Your task to perform on an android device: toggle javascript in the chrome app Image 0: 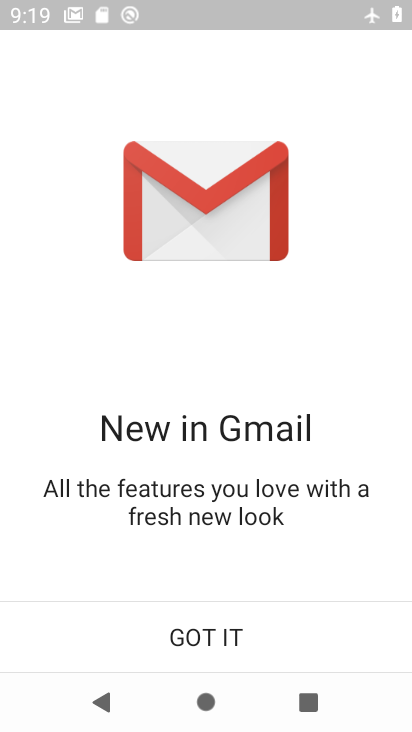
Step 0: press home button
Your task to perform on an android device: toggle javascript in the chrome app Image 1: 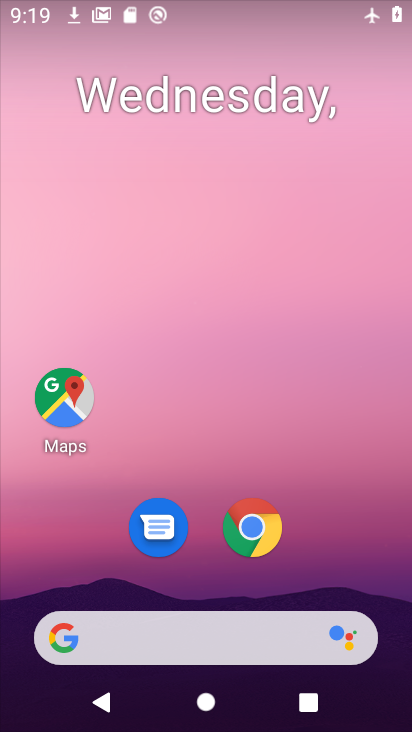
Step 1: click (250, 525)
Your task to perform on an android device: toggle javascript in the chrome app Image 2: 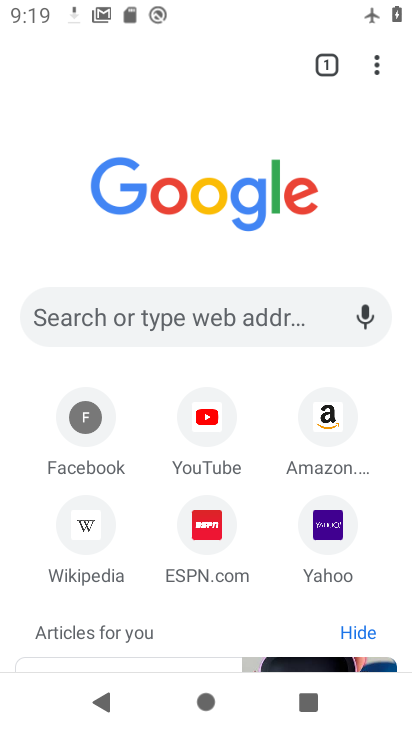
Step 2: click (378, 58)
Your task to perform on an android device: toggle javascript in the chrome app Image 3: 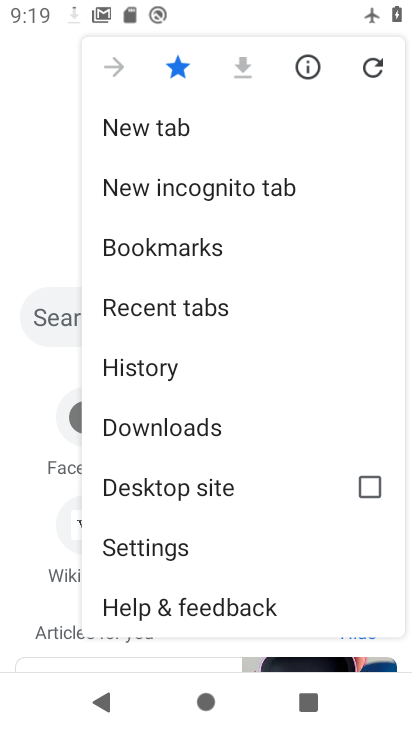
Step 3: click (194, 547)
Your task to perform on an android device: toggle javascript in the chrome app Image 4: 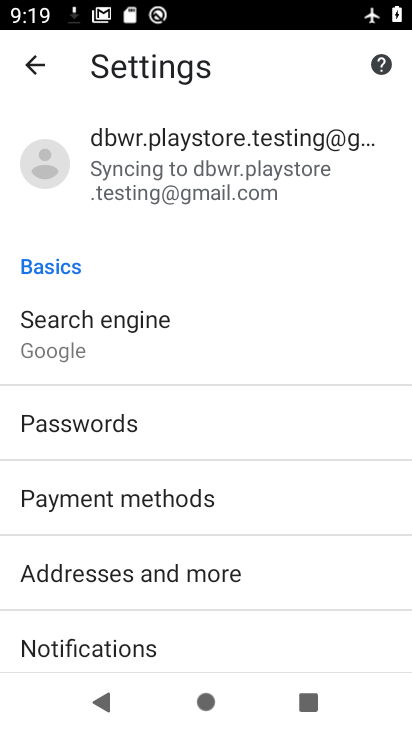
Step 4: drag from (259, 606) to (313, 51)
Your task to perform on an android device: toggle javascript in the chrome app Image 5: 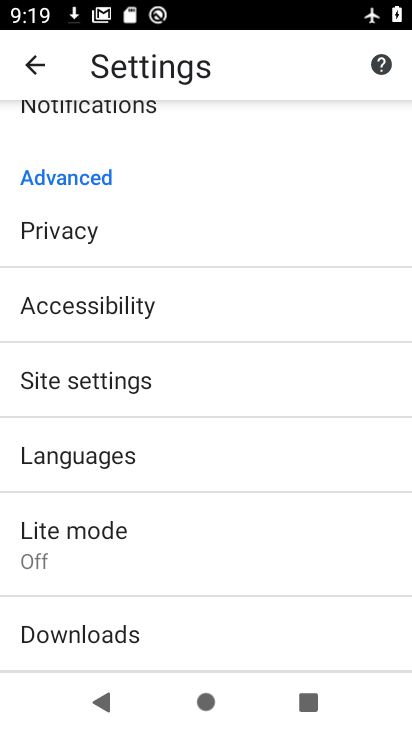
Step 5: click (162, 381)
Your task to perform on an android device: toggle javascript in the chrome app Image 6: 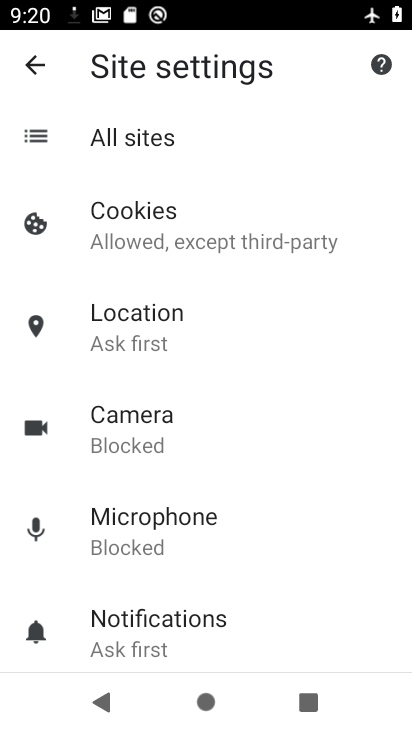
Step 6: drag from (252, 610) to (271, 149)
Your task to perform on an android device: toggle javascript in the chrome app Image 7: 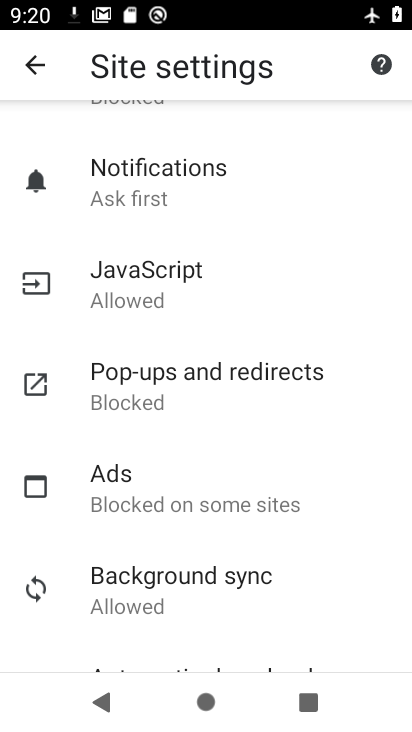
Step 7: click (188, 292)
Your task to perform on an android device: toggle javascript in the chrome app Image 8: 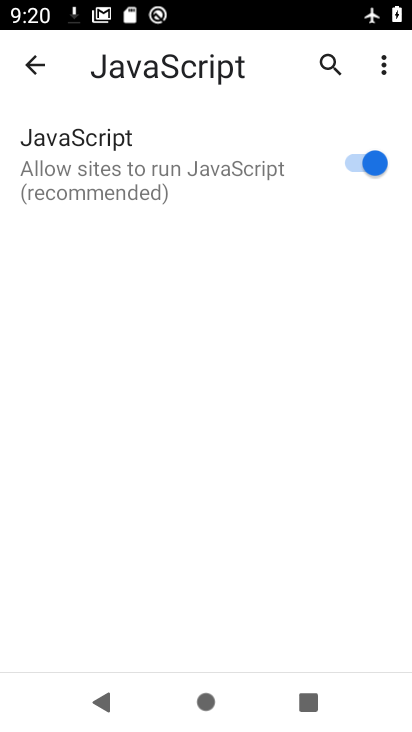
Step 8: click (357, 165)
Your task to perform on an android device: toggle javascript in the chrome app Image 9: 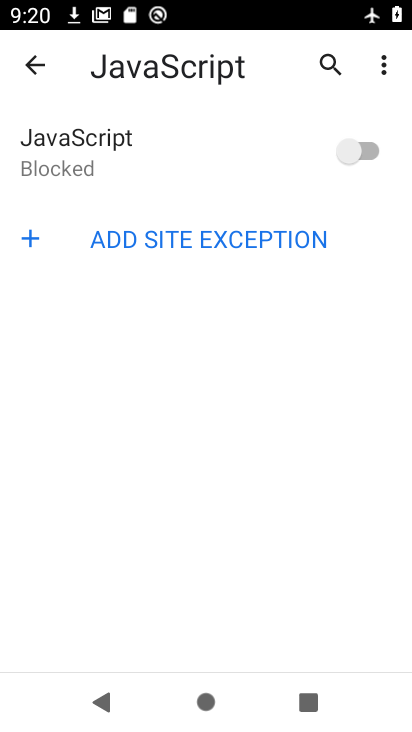
Step 9: task complete